Your task to perform on an android device: change the clock display to show seconds Image 0: 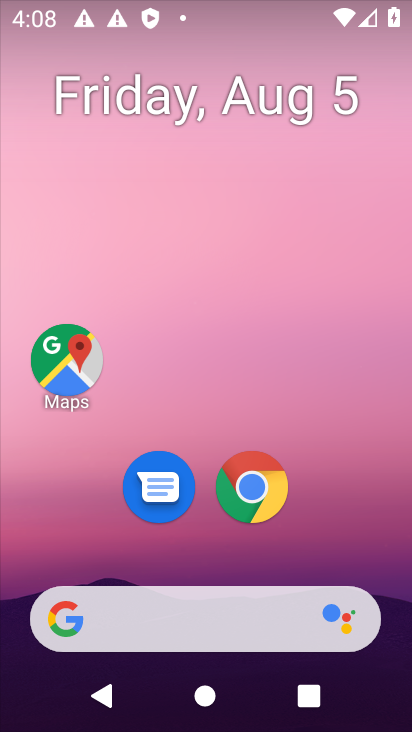
Step 0: drag from (333, 537) to (217, 232)
Your task to perform on an android device: change the clock display to show seconds Image 1: 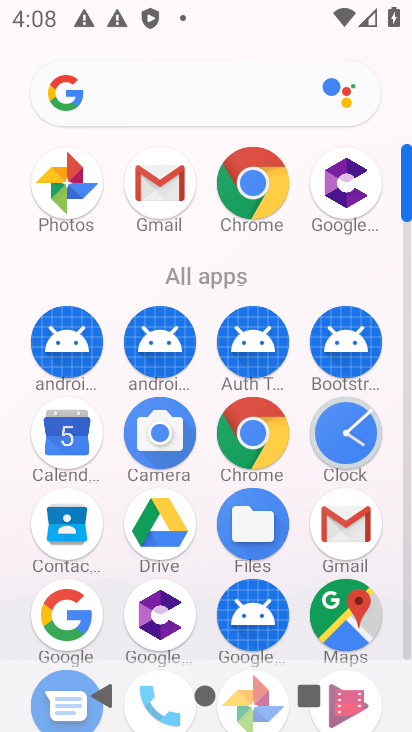
Step 1: click (244, 174)
Your task to perform on an android device: change the clock display to show seconds Image 2: 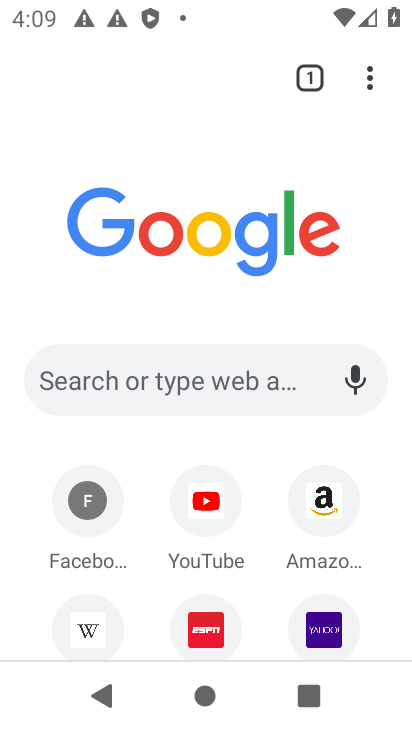
Step 2: press home button
Your task to perform on an android device: change the clock display to show seconds Image 3: 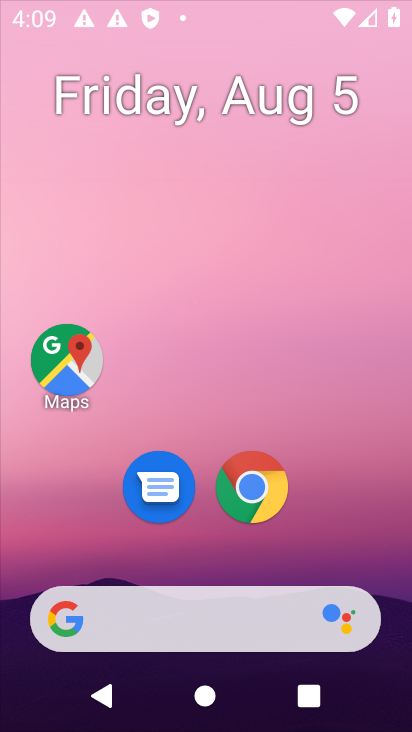
Step 3: press home button
Your task to perform on an android device: change the clock display to show seconds Image 4: 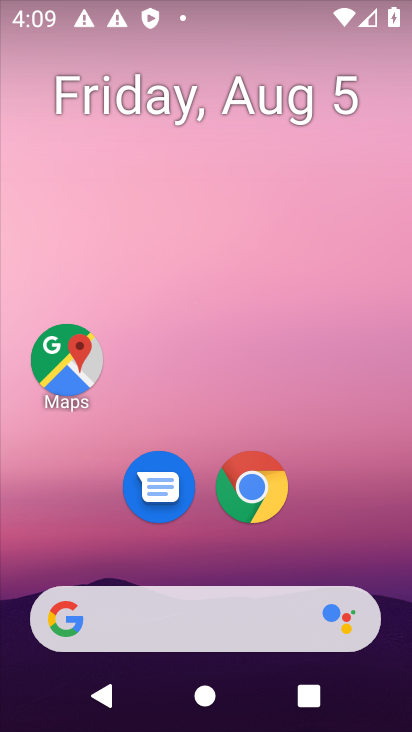
Step 4: press home button
Your task to perform on an android device: change the clock display to show seconds Image 5: 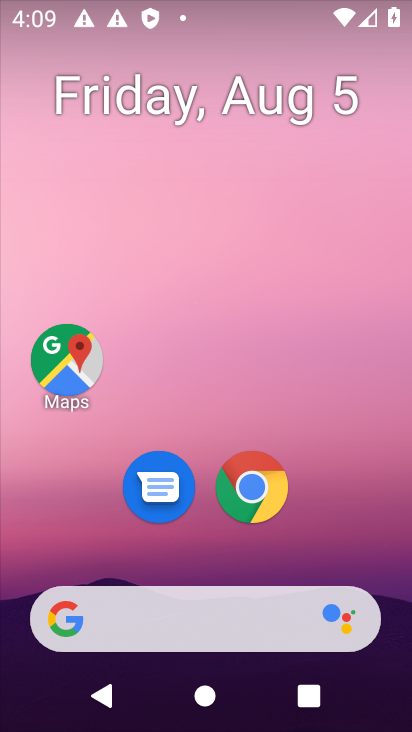
Step 5: drag from (228, 393) to (137, 188)
Your task to perform on an android device: change the clock display to show seconds Image 6: 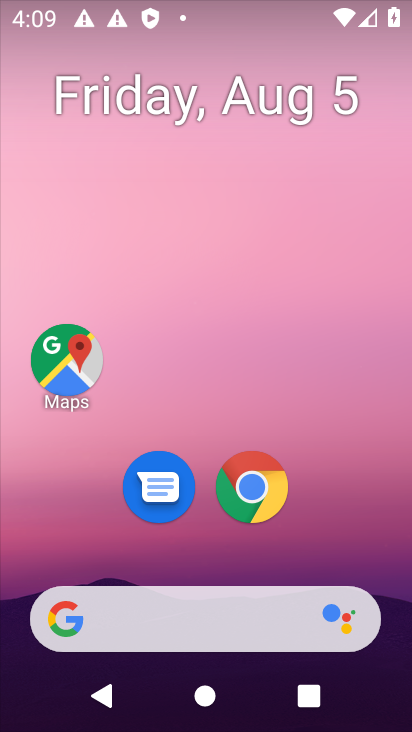
Step 6: drag from (201, 418) to (226, 27)
Your task to perform on an android device: change the clock display to show seconds Image 7: 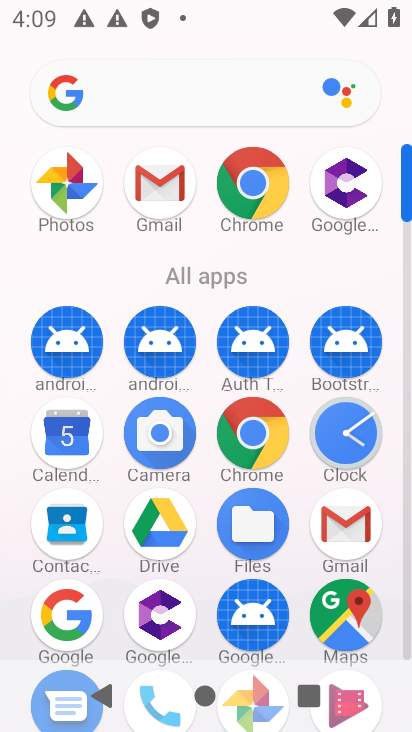
Step 7: click (250, 199)
Your task to perform on an android device: change the clock display to show seconds Image 8: 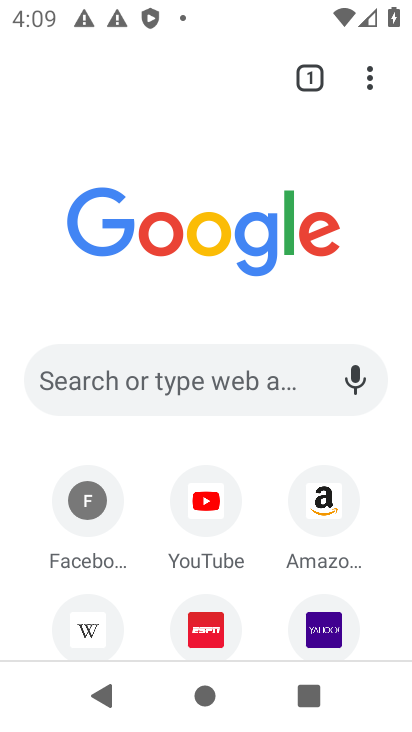
Step 8: task complete